Your task to perform on an android device: turn pop-ups off in chrome Image 0: 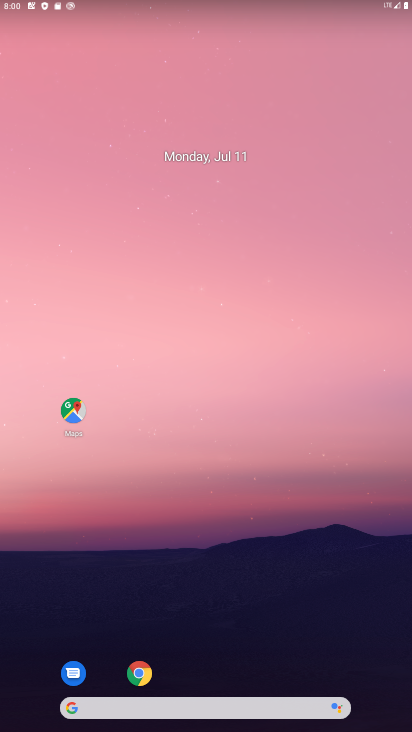
Step 0: click (136, 678)
Your task to perform on an android device: turn pop-ups off in chrome Image 1: 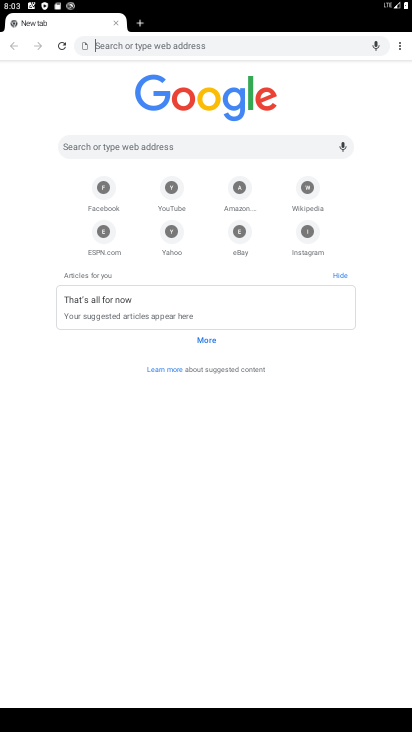
Step 1: click (395, 47)
Your task to perform on an android device: turn pop-ups off in chrome Image 2: 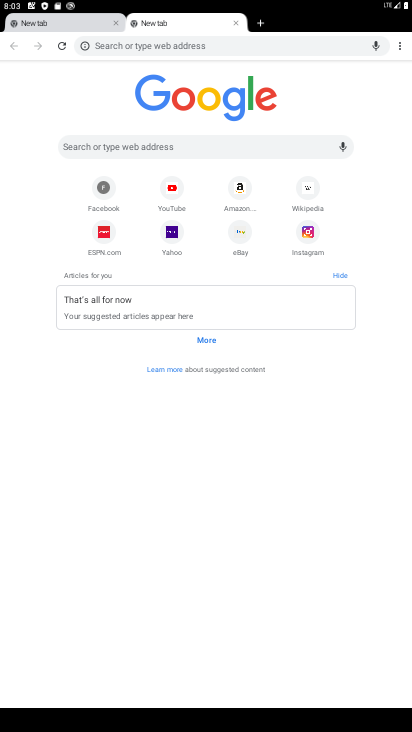
Step 2: click (402, 49)
Your task to perform on an android device: turn pop-ups off in chrome Image 3: 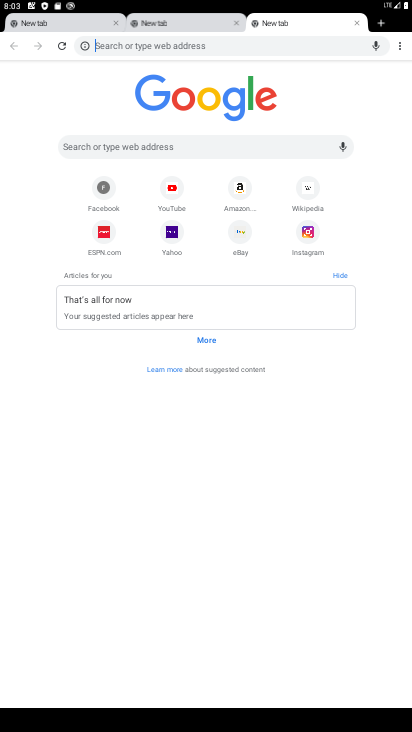
Step 3: click (401, 40)
Your task to perform on an android device: turn pop-ups off in chrome Image 4: 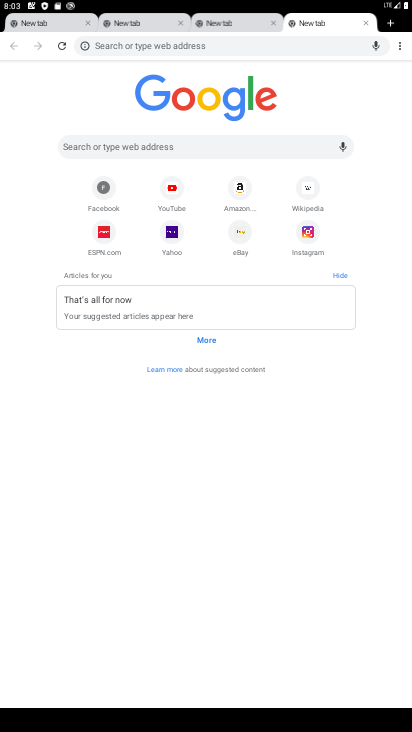
Step 4: click (401, 40)
Your task to perform on an android device: turn pop-ups off in chrome Image 5: 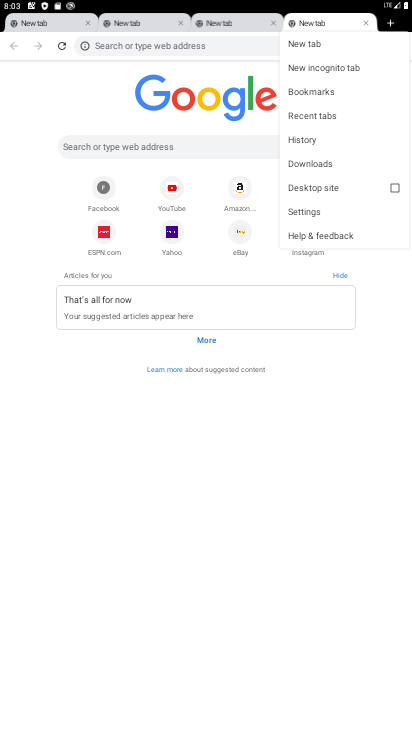
Step 5: click (317, 210)
Your task to perform on an android device: turn pop-ups off in chrome Image 6: 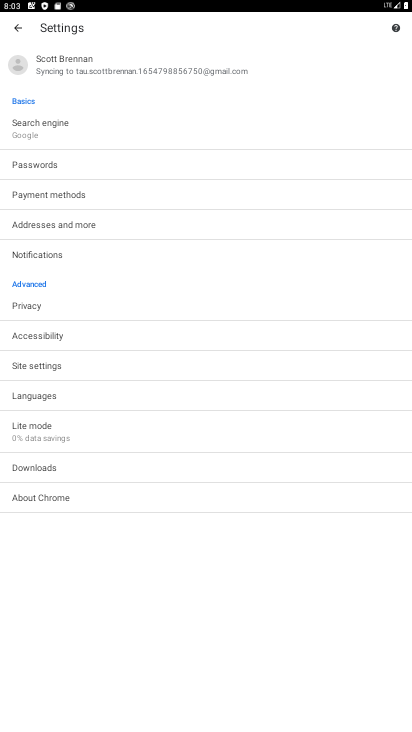
Step 6: click (42, 365)
Your task to perform on an android device: turn pop-ups off in chrome Image 7: 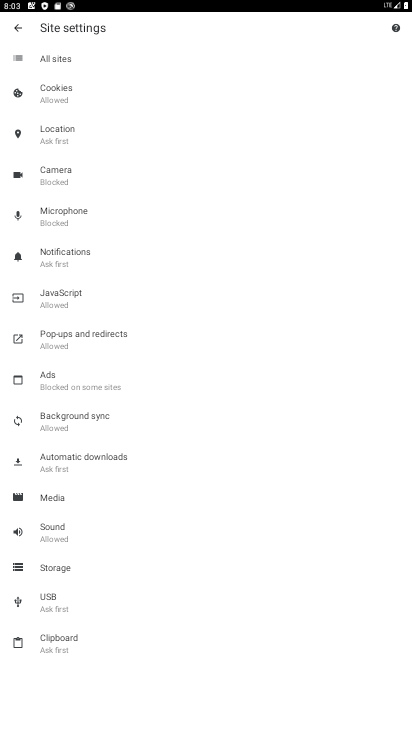
Step 7: click (71, 340)
Your task to perform on an android device: turn pop-ups off in chrome Image 8: 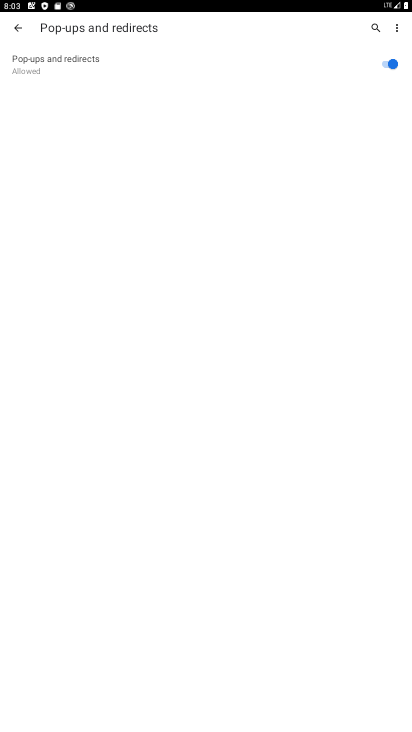
Step 8: click (389, 63)
Your task to perform on an android device: turn pop-ups off in chrome Image 9: 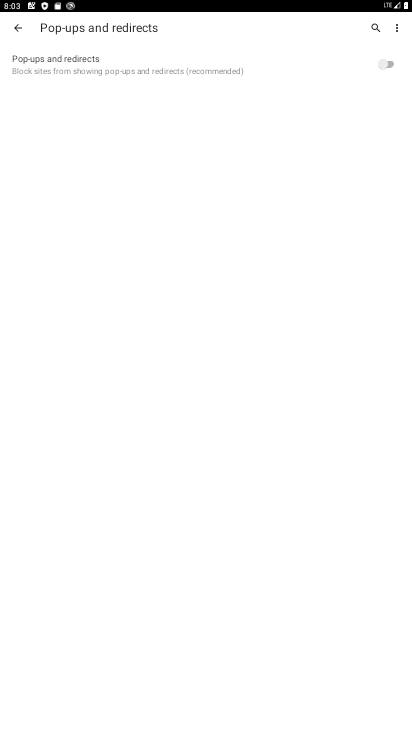
Step 9: task complete